Your task to perform on an android device: Google the capital of Chile Image 0: 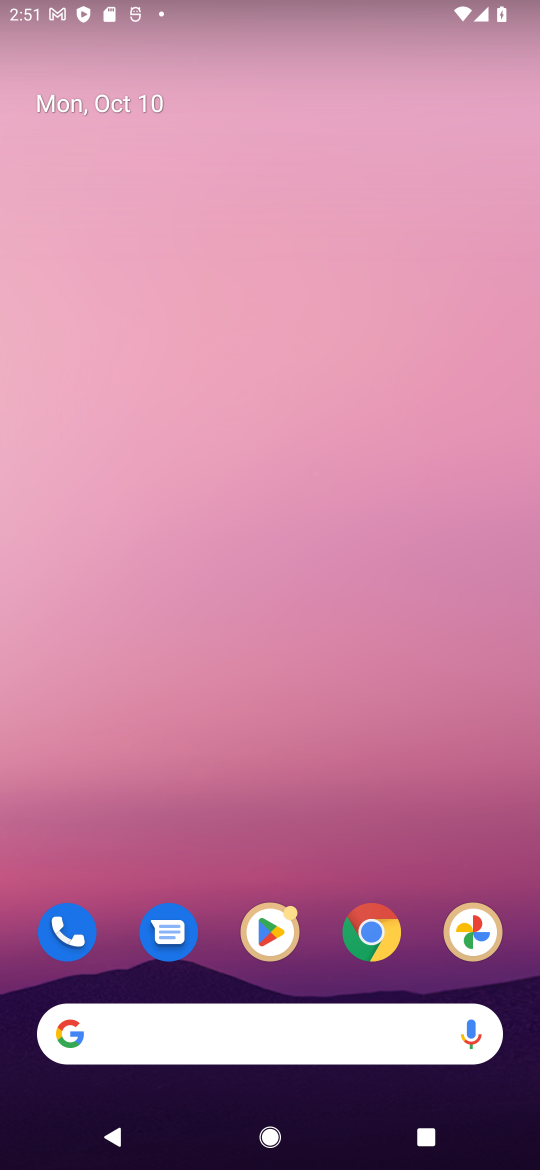
Step 0: press home button
Your task to perform on an android device: Google the capital of Chile Image 1: 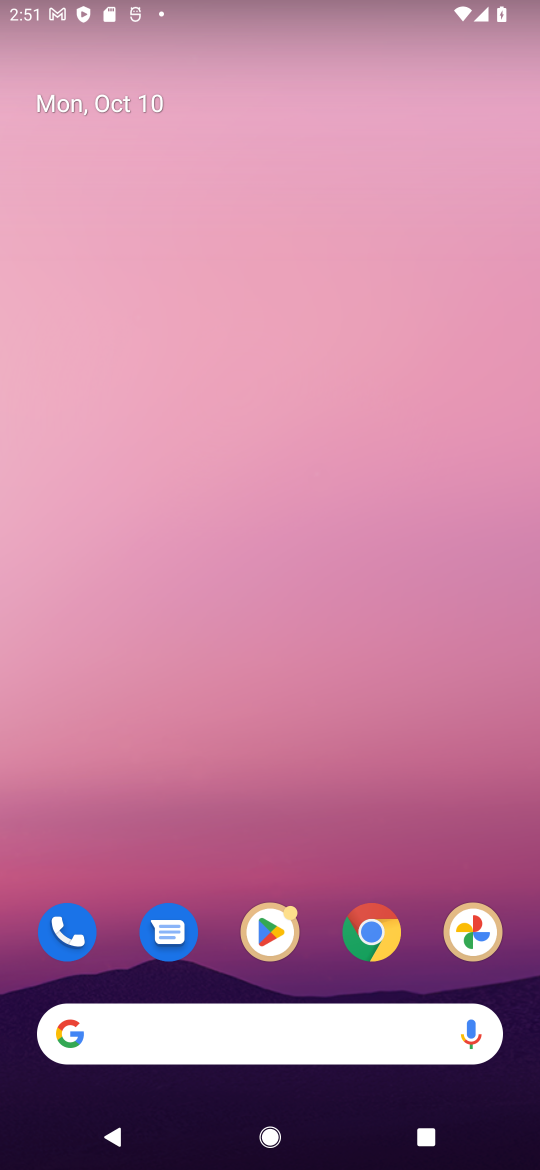
Step 1: click (342, 1033)
Your task to perform on an android device: Google the capital of Chile Image 2: 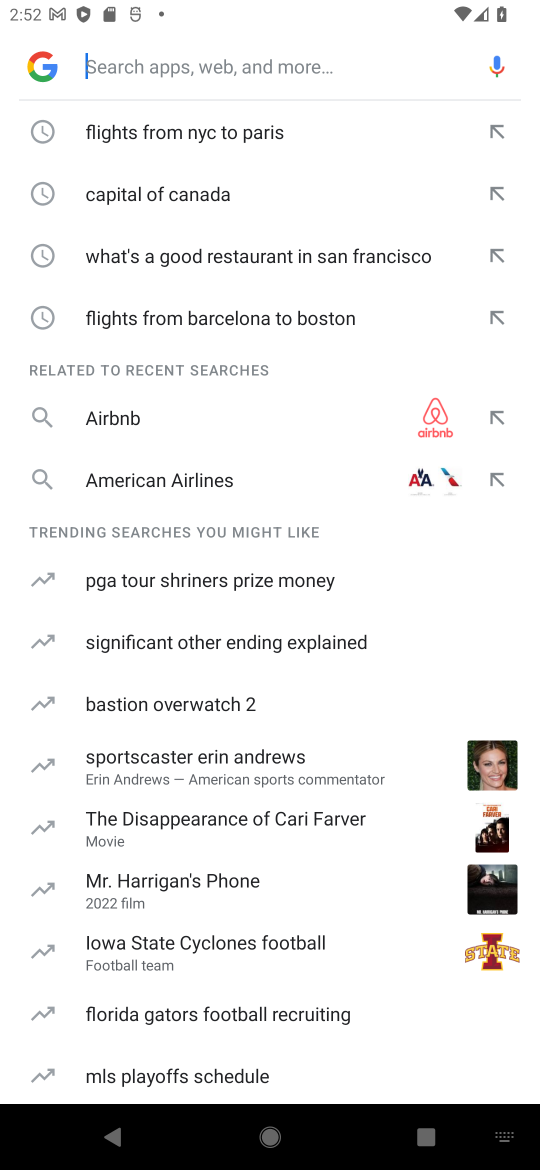
Step 2: type "Google the capital of Chile"
Your task to perform on an android device: Google the capital of Chile Image 3: 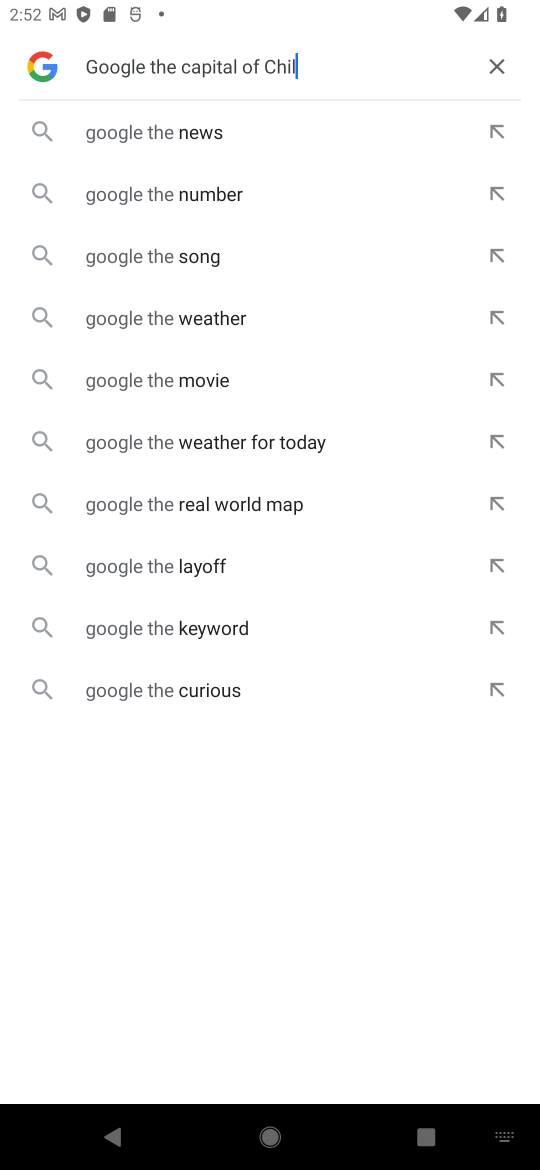
Step 3: press enter
Your task to perform on an android device: Google the capital of Chile Image 4: 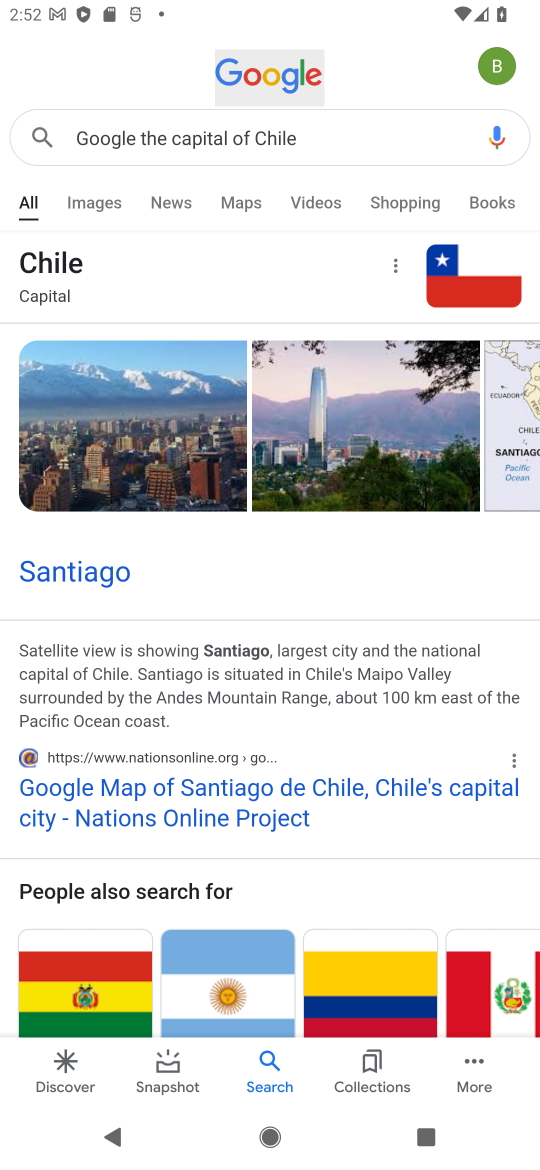
Step 4: task complete